Your task to perform on an android device: Show me productivity apps on the Play Store Image 0: 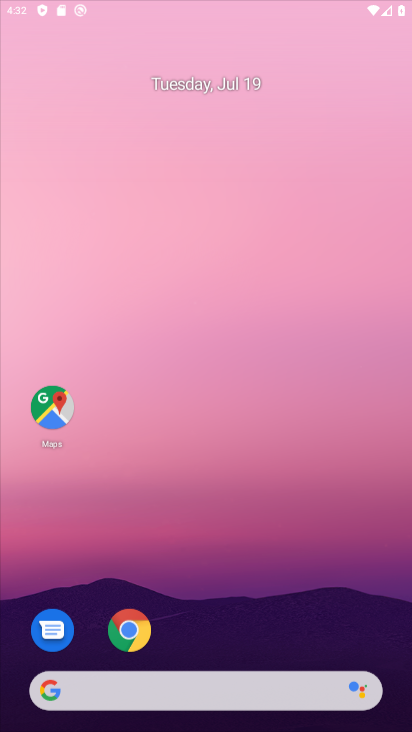
Step 0: click (125, 245)
Your task to perform on an android device: Show me productivity apps on the Play Store Image 1: 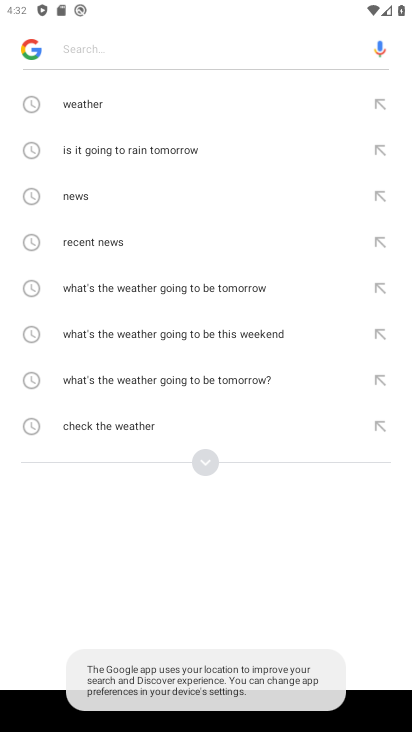
Step 1: press back button
Your task to perform on an android device: Show me productivity apps on the Play Store Image 2: 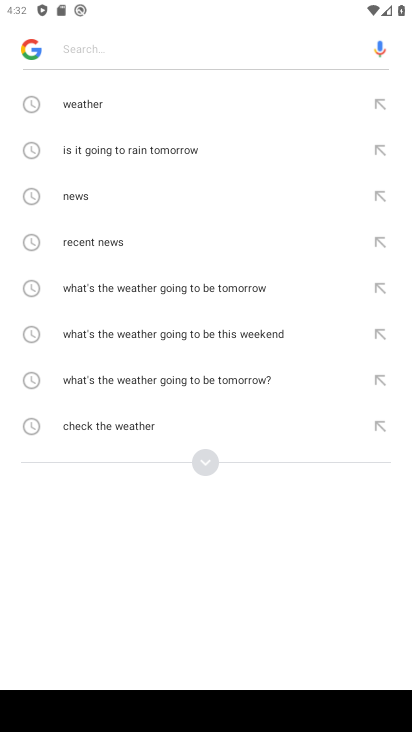
Step 2: press back button
Your task to perform on an android device: Show me productivity apps on the Play Store Image 3: 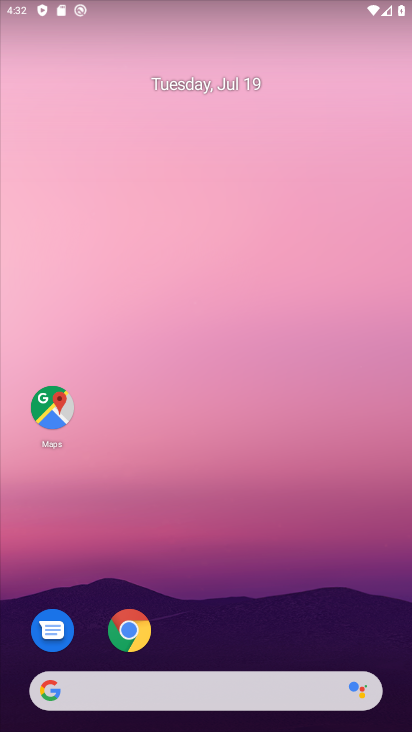
Step 3: press home button
Your task to perform on an android device: Show me productivity apps on the Play Store Image 4: 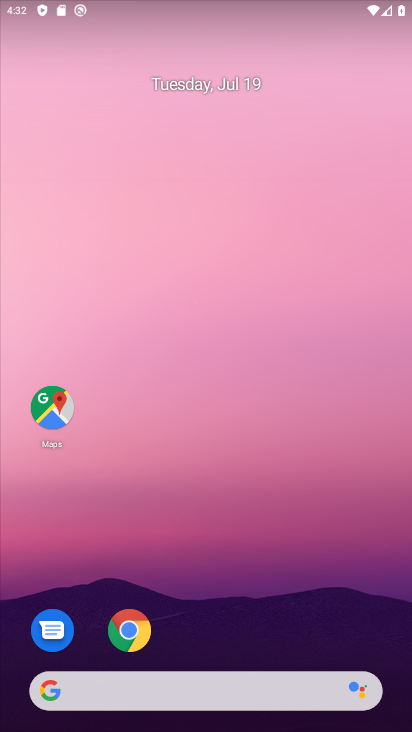
Step 4: click (233, 151)
Your task to perform on an android device: Show me productivity apps on the Play Store Image 5: 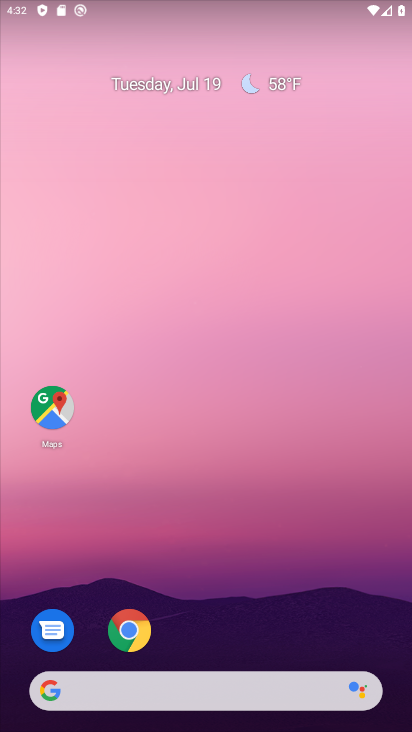
Step 5: drag from (240, 646) to (234, 113)
Your task to perform on an android device: Show me productivity apps on the Play Store Image 6: 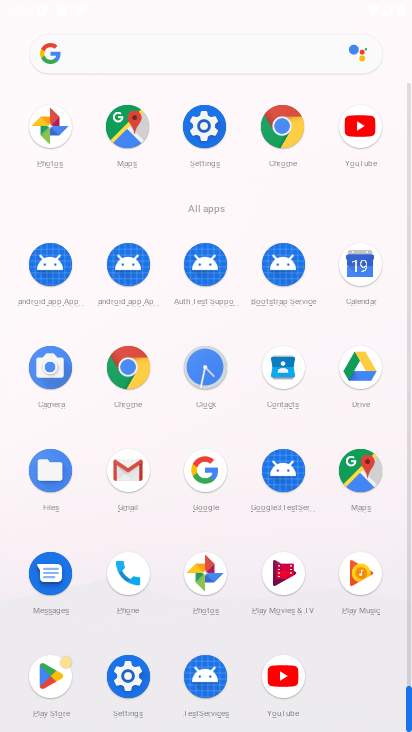
Step 6: drag from (223, 467) to (185, 119)
Your task to perform on an android device: Show me productivity apps on the Play Store Image 7: 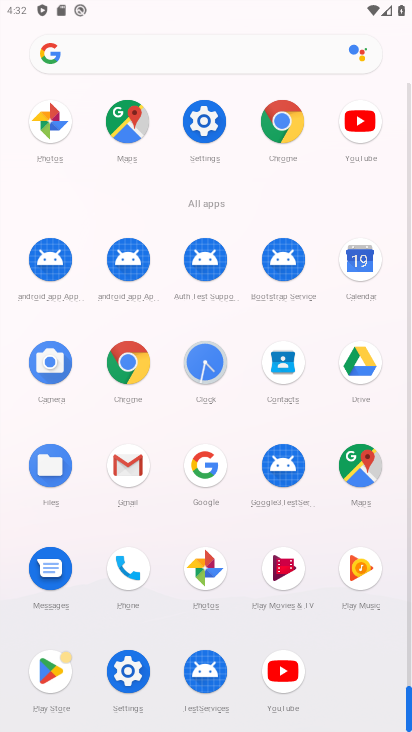
Step 7: click (45, 682)
Your task to perform on an android device: Show me productivity apps on the Play Store Image 8: 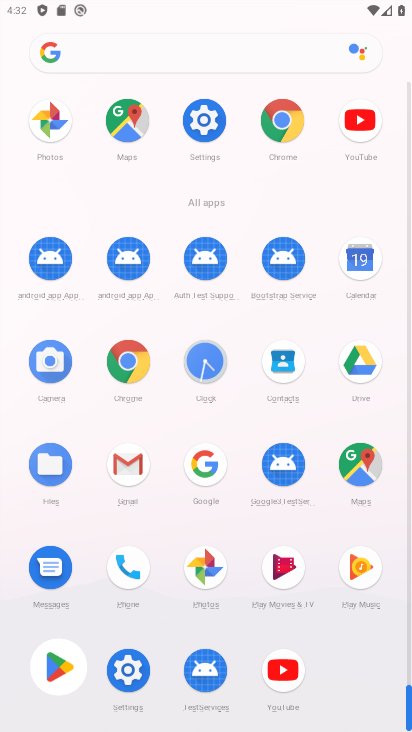
Step 8: click (41, 682)
Your task to perform on an android device: Show me productivity apps on the Play Store Image 9: 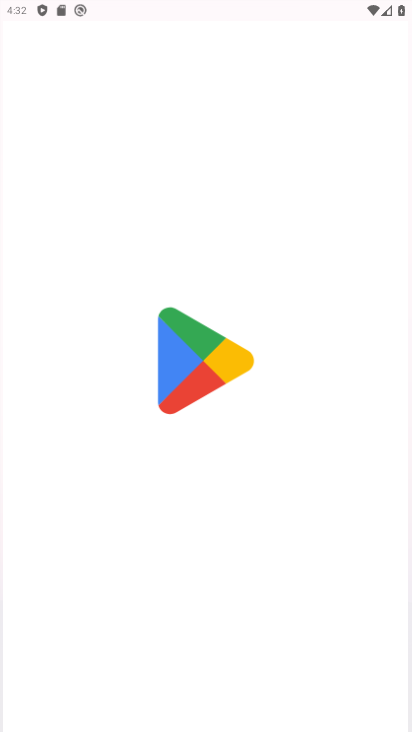
Step 9: click (43, 680)
Your task to perform on an android device: Show me productivity apps on the Play Store Image 10: 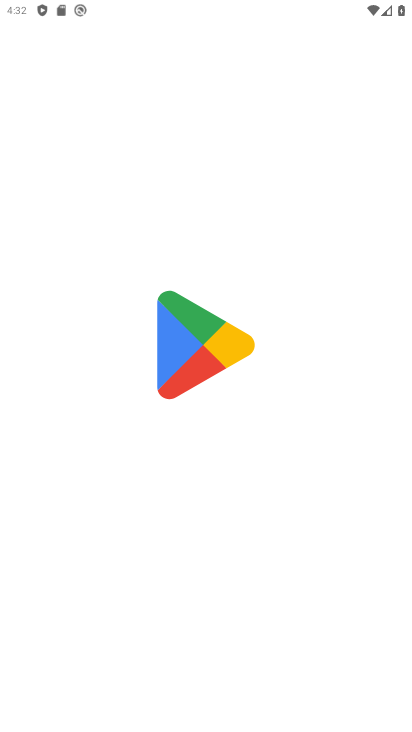
Step 10: click (48, 678)
Your task to perform on an android device: Show me productivity apps on the Play Store Image 11: 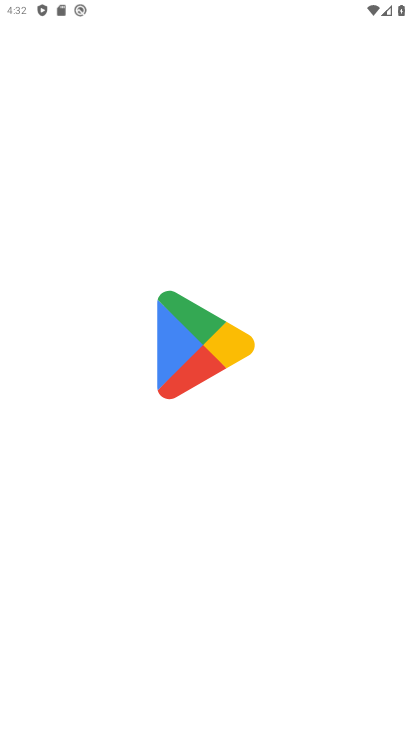
Step 11: click (48, 676)
Your task to perform on an android device: Show me productivity apps on the Play Store Image 12: 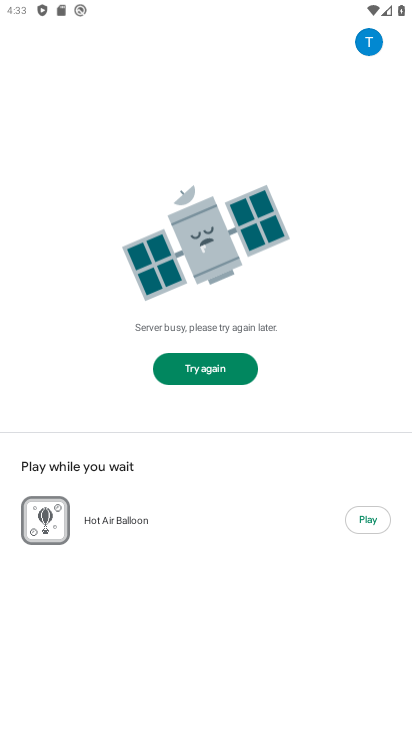
Step 12: task complete